Your task to perform on an android device: turn smart compose on in the gmail app Image 0: 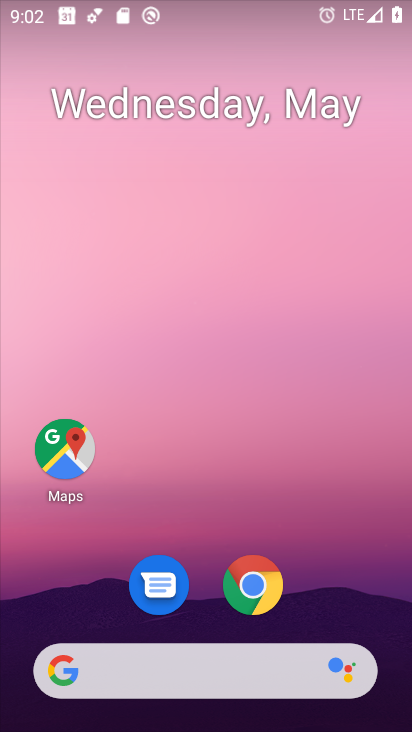
Step 0: drag from (340, 493) to (219, 19)
Your task to perform on an android device: turn smart compose on in the gmail app Image 1: 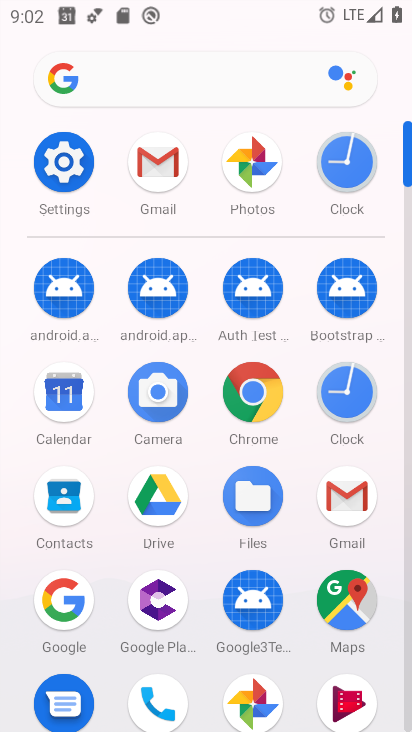
Step 1: click (163, 158)
Your task to perform on an android device: turn smart compose on in the gmail app Image 2: 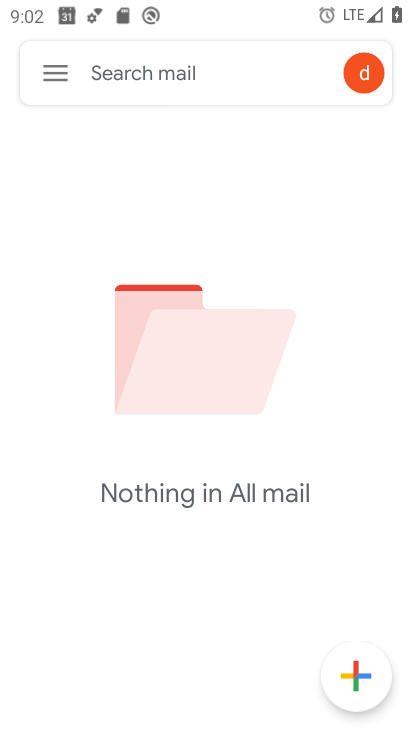
Step 2: click (51, 65)
Your task to perform on an android device: turn smart compose on in the gmail app Image 3: 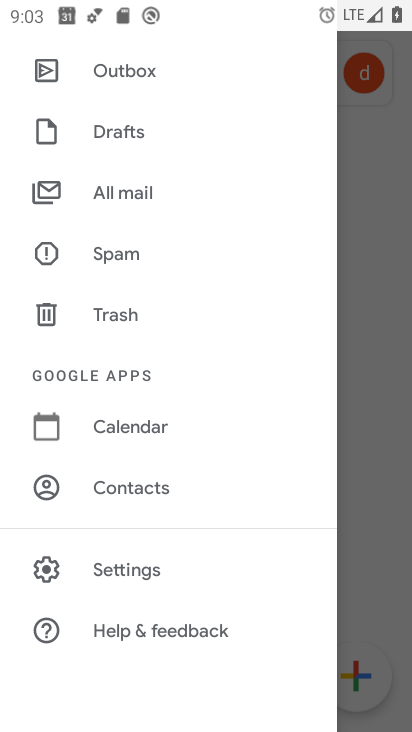
Step 3: click (130, 563)
Your task to perform on an android device: turn smart compose on in the gmail app Image 4: 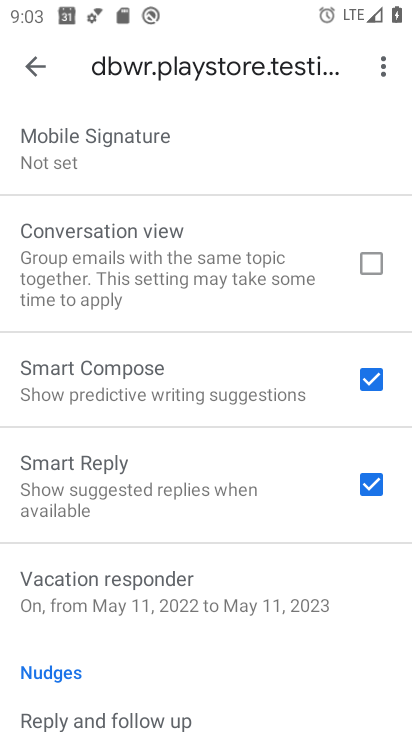
Step 4: task complete